Your task to perform on an android device: allow cookies in the chrome app Image 0: 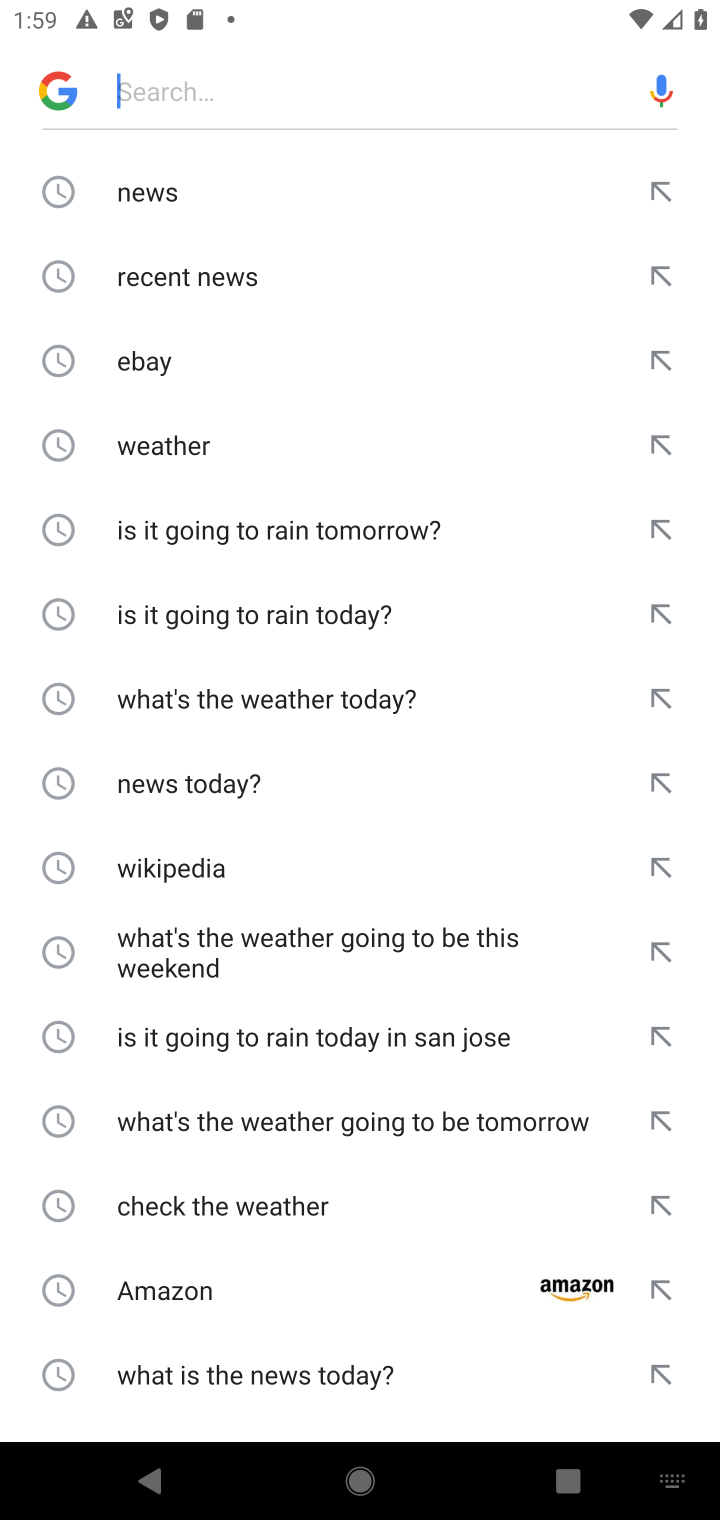
Step 0: press home button
Your task to perform on an android device: allow cookies in the chrome app Image 1: 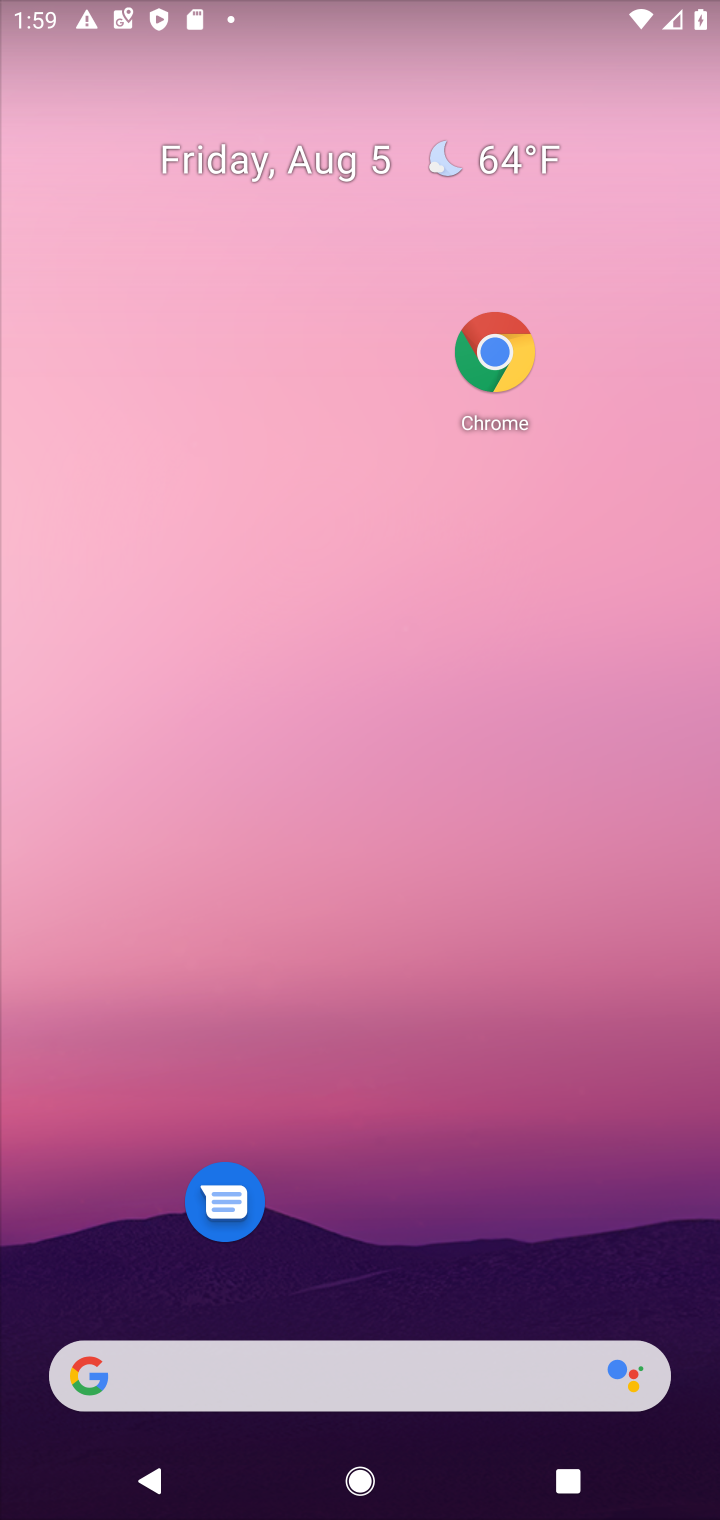
Step 1: drag from (504, 961) to (468, 230)
Your task to perform on an android device: allow cookies in the chrome app Image 2: 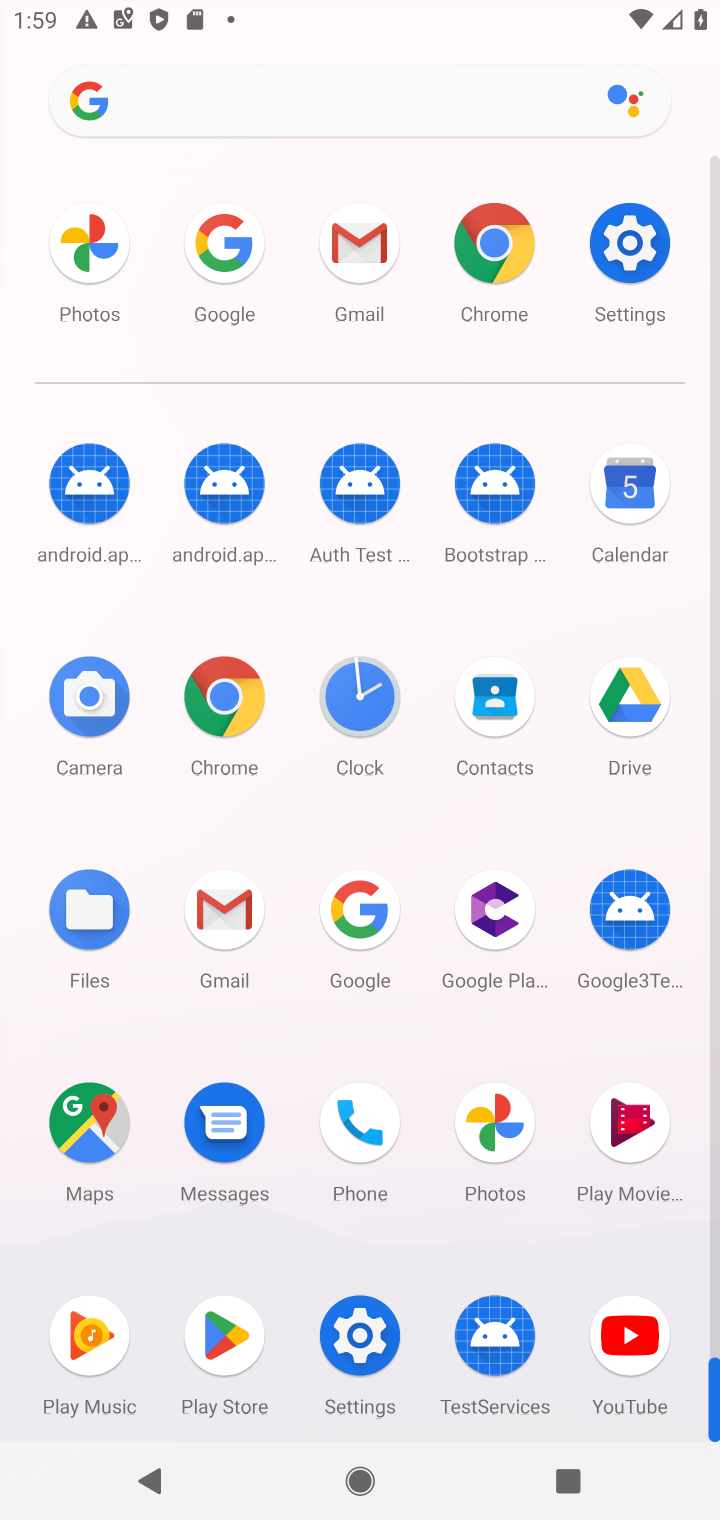
Step 2: click (218, 695)
Your task to perform on an android device: allow cookies in the chrome app Image 3: 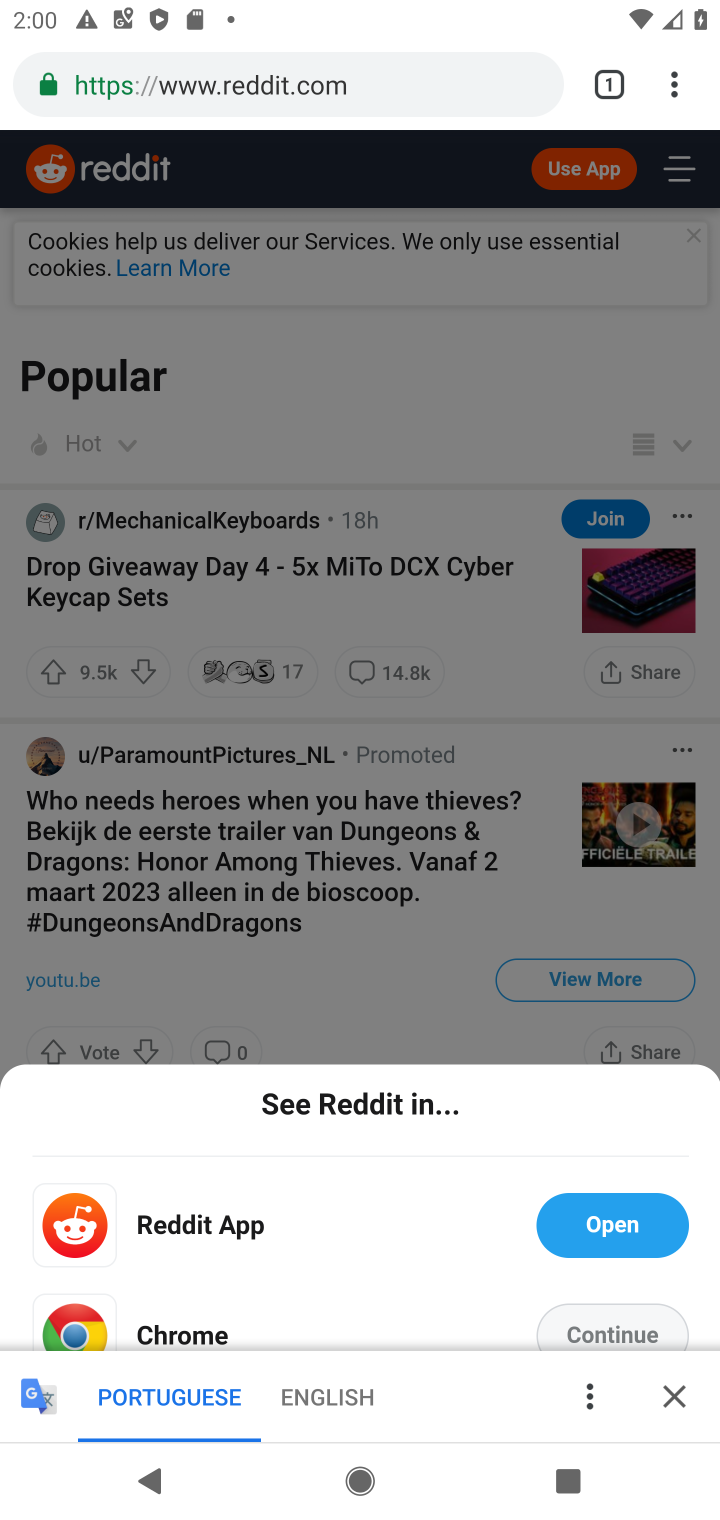
Step 3: drag from (677, 73) to (382, 1046)
Your task to perform on an android device: allow cookies in the chrome app Image 4: 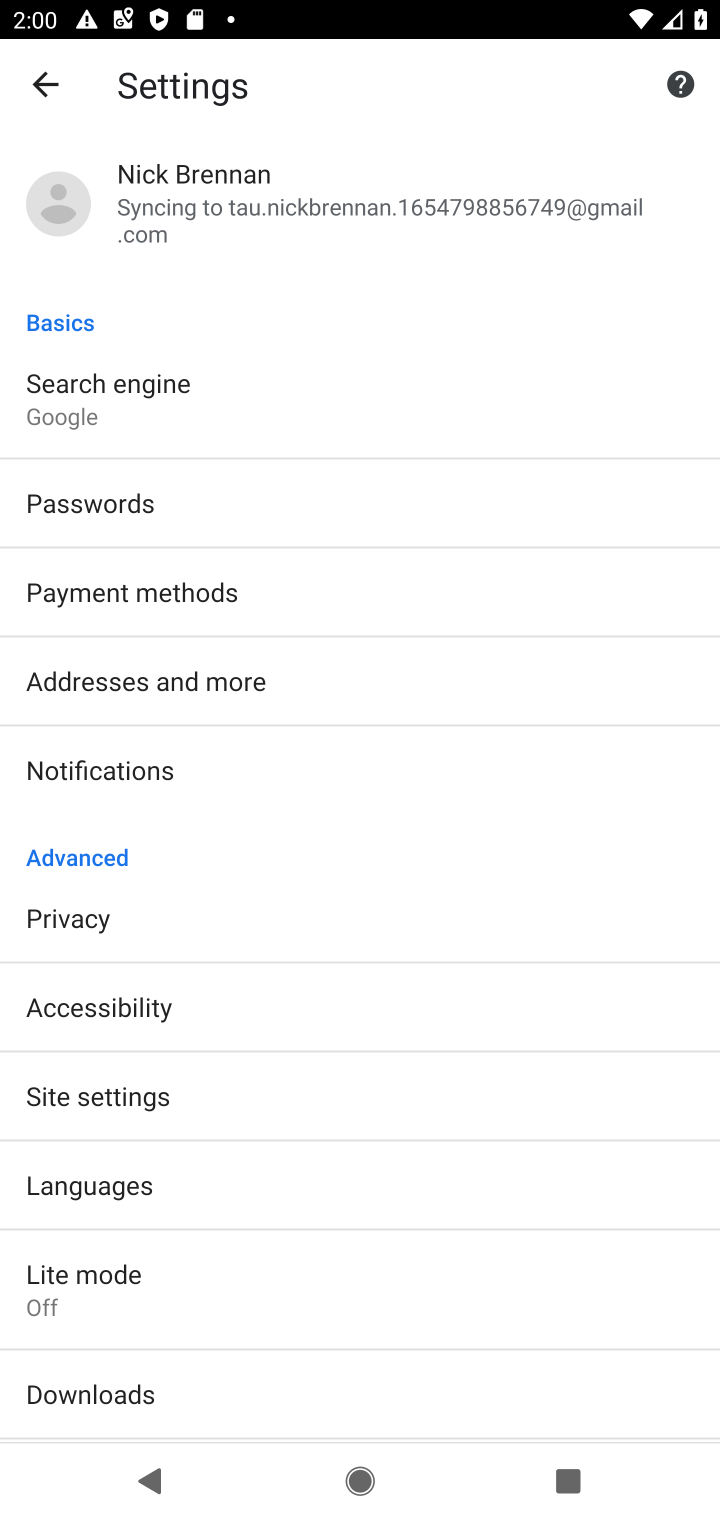
Step 4: click (148, 1088)
Your task to perform on an android device: allow cookies in the chrome app Image 5: 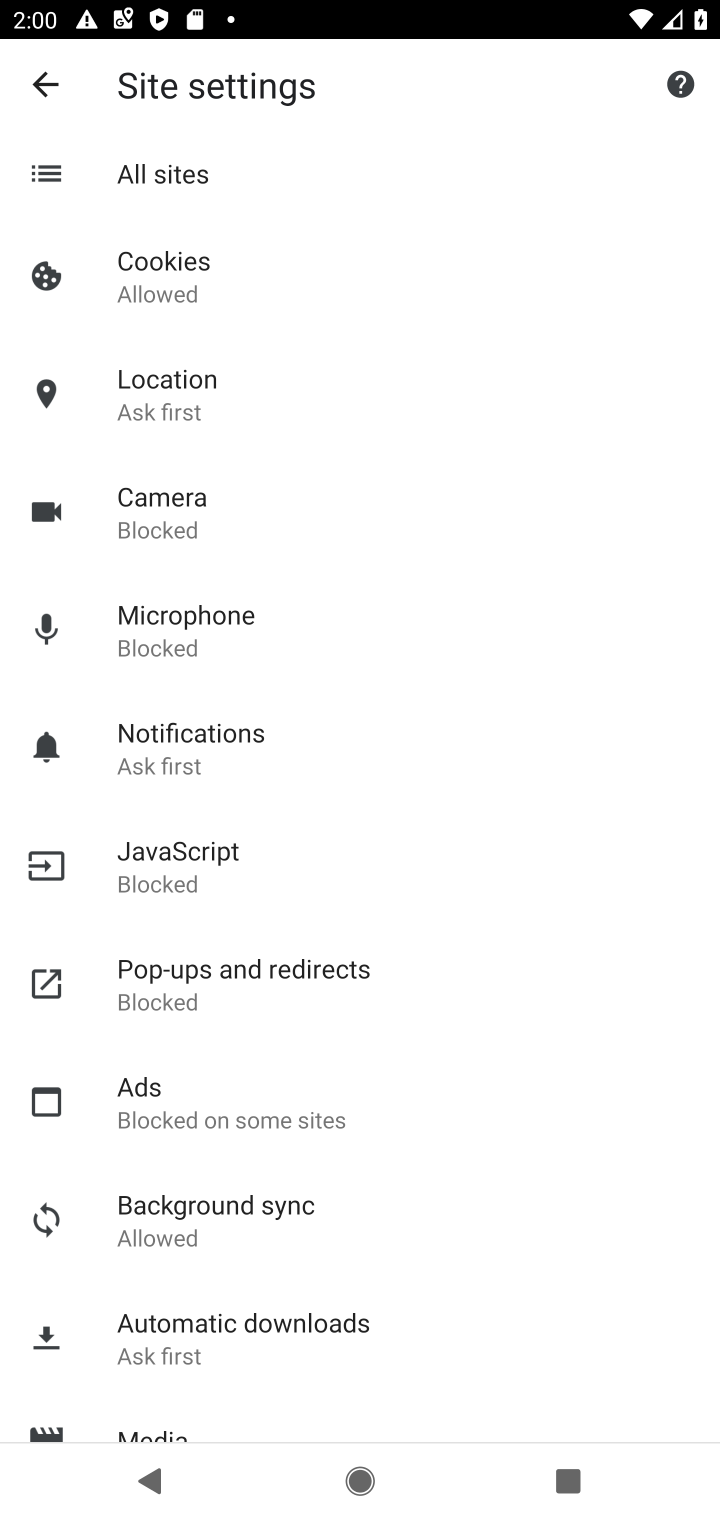
Step 5: click (216, 284)
Your task to perform on an android device: allow cookies in the chrome app Image 6: 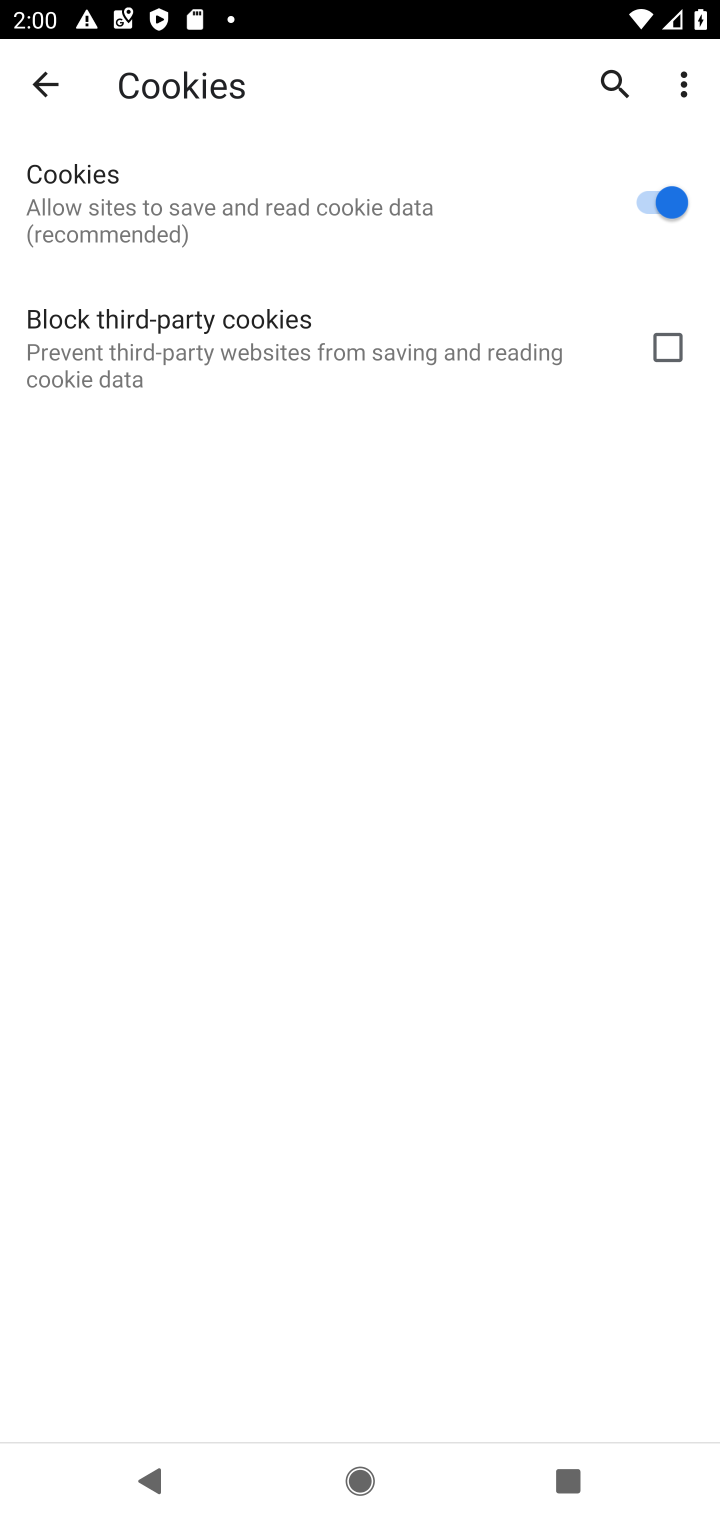
Step 6: task complete